Your task to perform on an android device: Open the web browser Image 0: 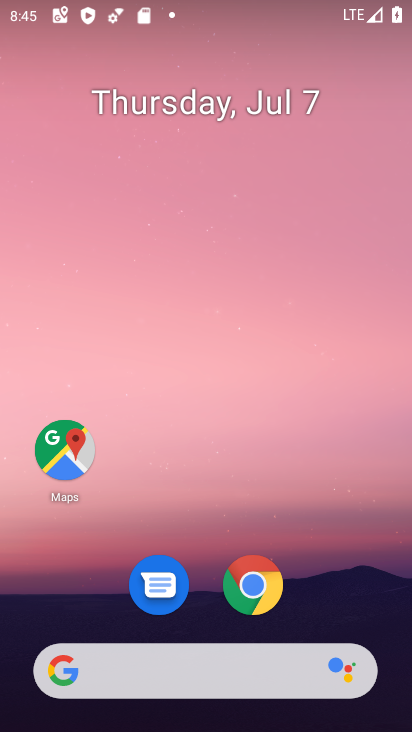
Step 0: drag from (217, 473) to (242, 28)
Your task to perform on an android device: Open the web browser Image 1: 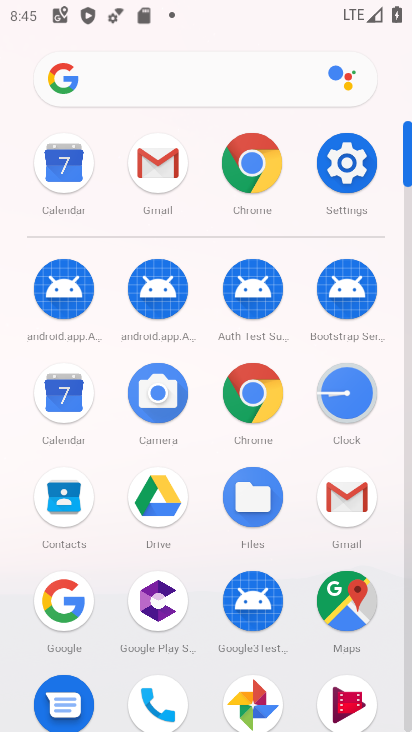
Step 1: click (258, 85)
Your task to perform on an android device: Open the web browser Image 2: 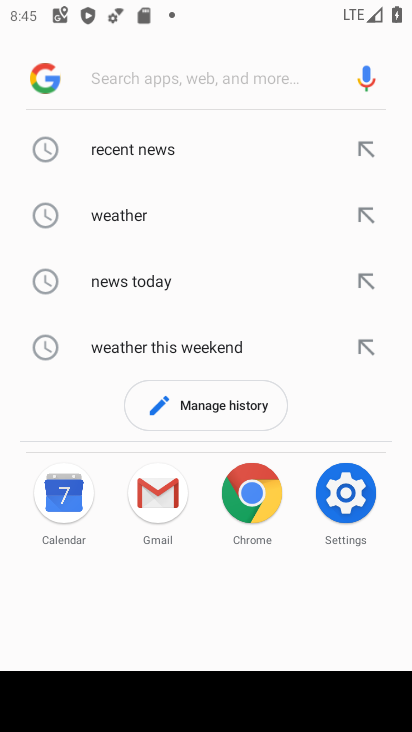
Step 2: click (259, 500)
Your task to perform on an android device: Open the web browser Image 3: 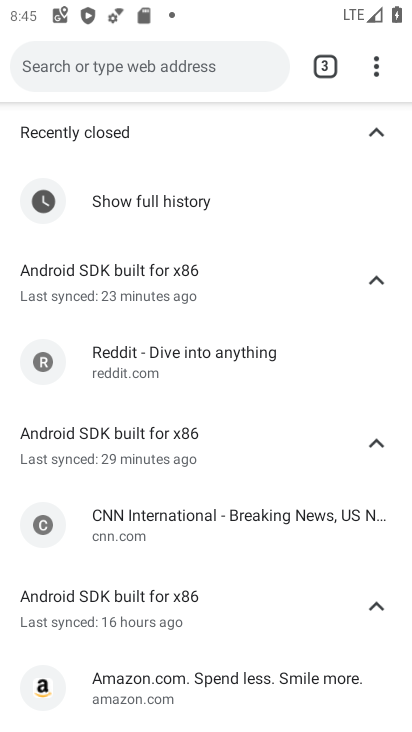
Step 3: click (209, 60)
Your task to perform on an android device: Open the web browser Image 4: 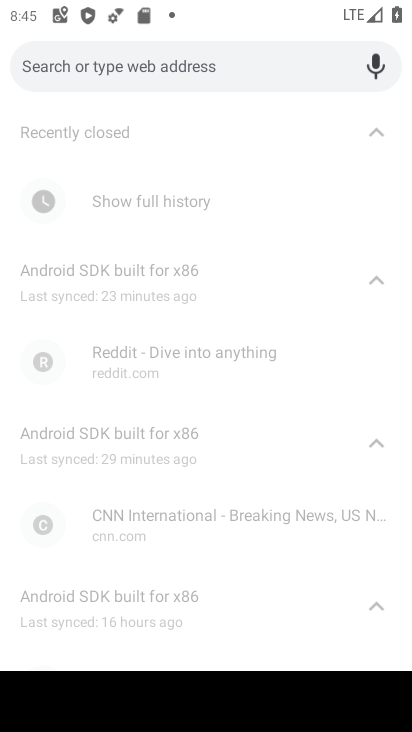
Step 4: task complete